Your task to perform on an android device: What is the recent news? Image 0: 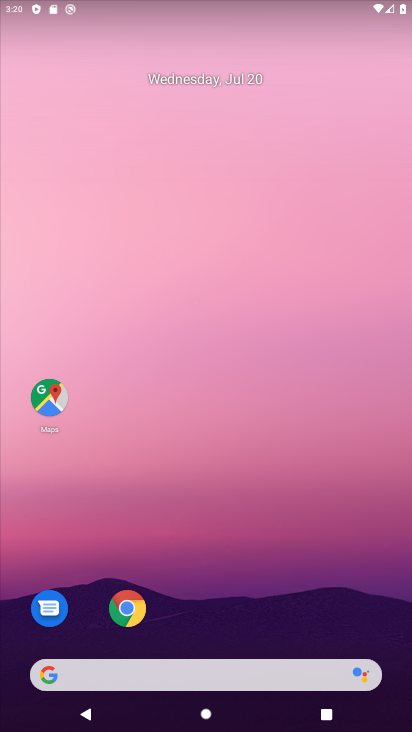
Step 0: drag from (278, 638) to (207, 130)
Your task to perform on an android device: What is the recent news? Image 1: 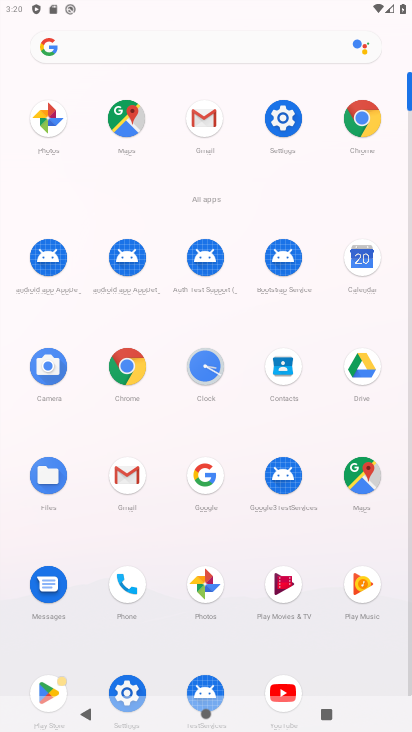
Step 1: click (144, 51)
Your task to perform on an android device: What is the recent news? Image 2: 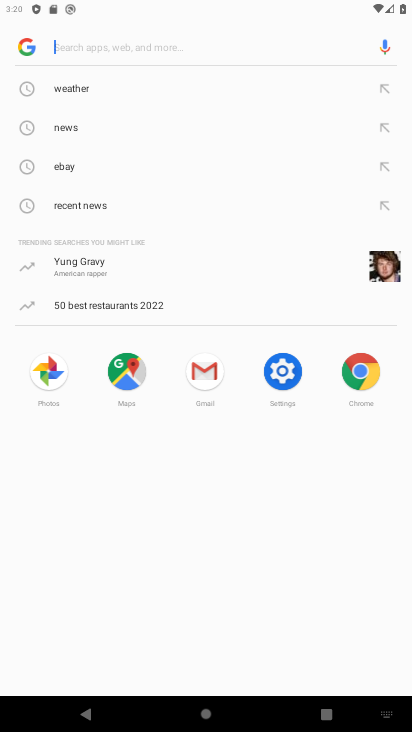
Step 2: click (79, 117)
Your task to perform on an android device: What is the recent news? Image 3: 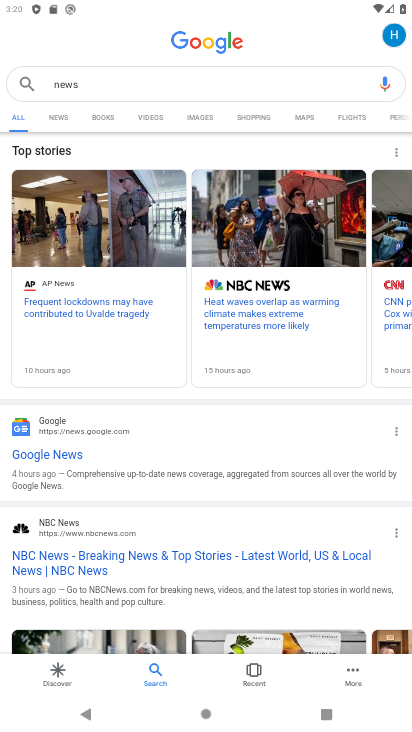
Step 3: task complete